Your task to perform on an android device: open app "TextNow: Call + Text Unlimited" Image 0: 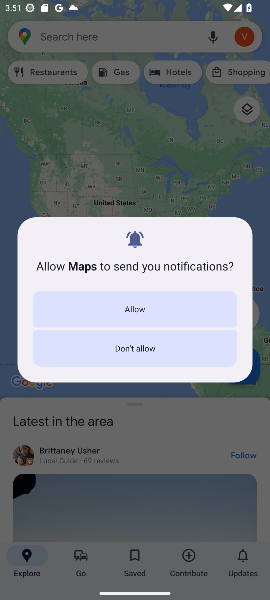
Step 0: press home button
Your task to perform on an android device: open app "TextNow: Call + Text Unlimited" Image 1: 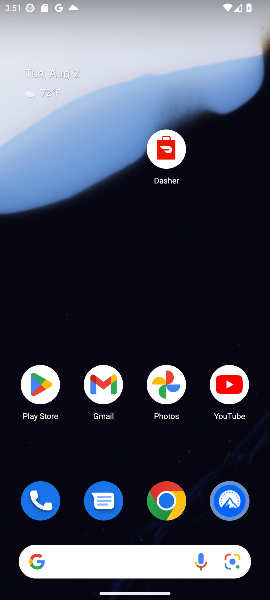
Step 1: click (39, 393)
Your task to perform on an android device: open app "TextNow: Call + Text Unlimited" Image 2: 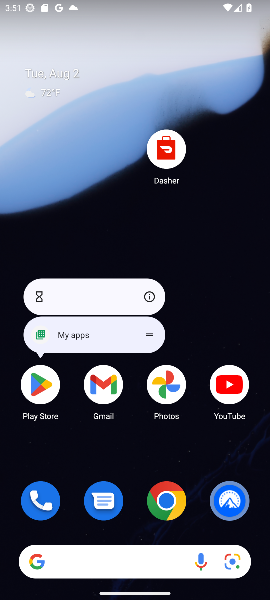
Step 2: click (38, 386)
Your task to perform on an android device: open app "TextNow: Call + Text Unlimited" Image 3: 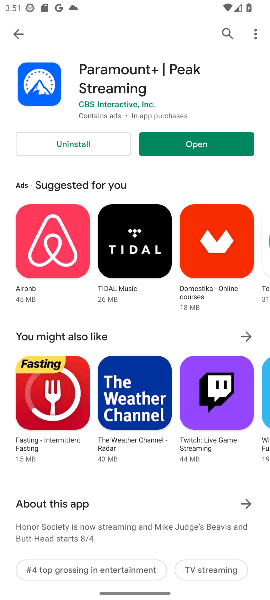
Step 3: click (230, 36)
Your task to perform on an android device: open app "TextNow: Call + Text Unlimited" Image 4: 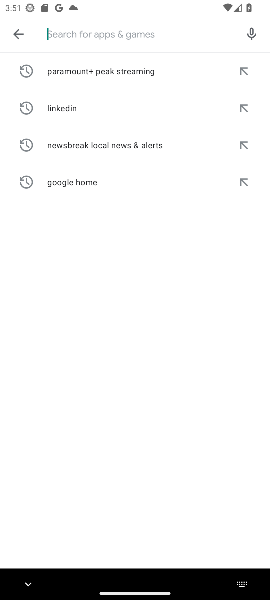
Step 4: type "TextNow: Call + Text Unlimited"
Your task to perform on an android device: open app "TextNow: Call + Text Unlimited" Image 5: 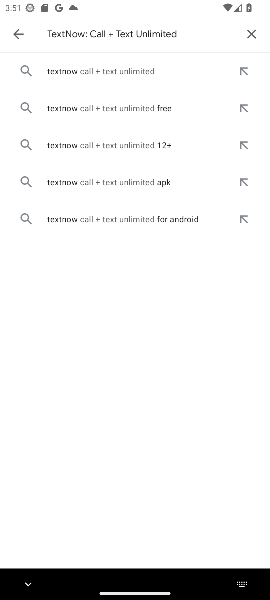
Step 5: click (105, 72)
Your task to perform on an android device: open app "TextNow: Call + Text Unlimited" Image 6: 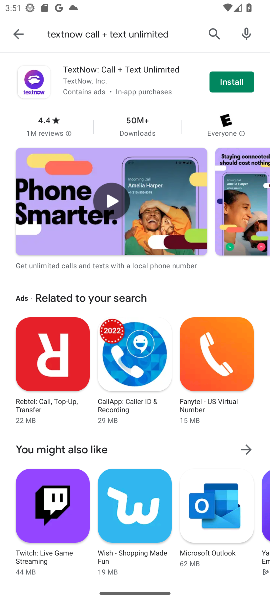
Step 6: task complete